Your task to perform on an android device: delete a single message in the gmail app Image 0: 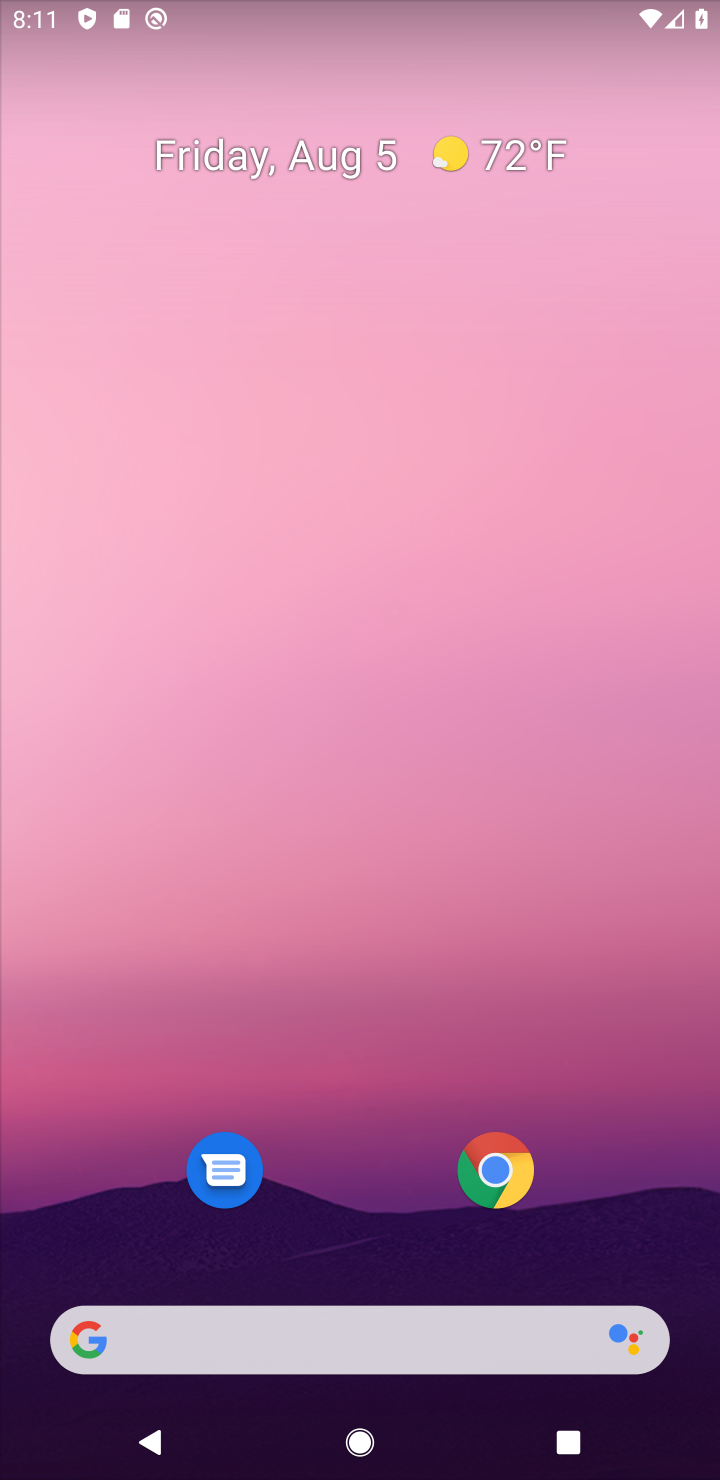
Step 0: drag from (672, 1243) to (572, 111)
Your task to perform on an android device: delete a single message in the gmail app Image 1: 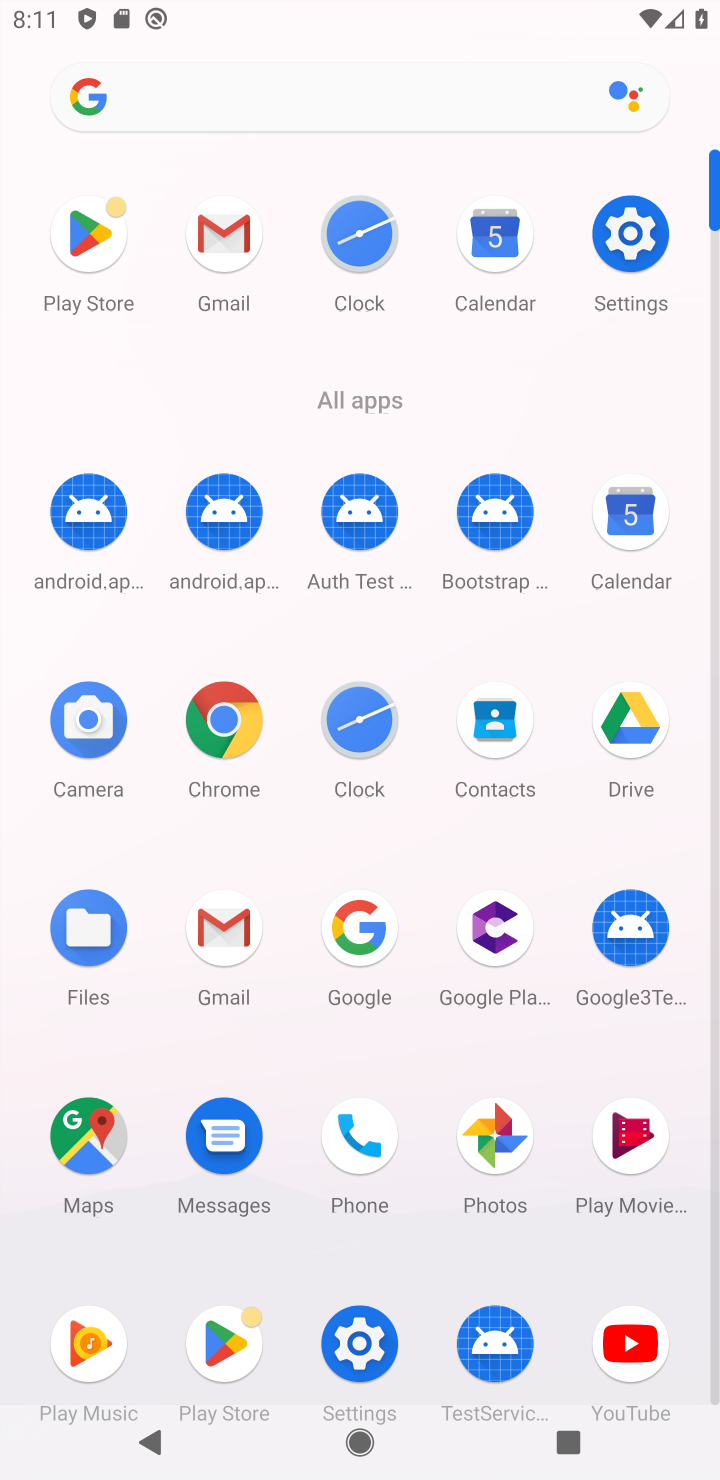
Step 1: click (222, 934)
Your task to perform on an android device: delete a single message in the gmail app Image 2: 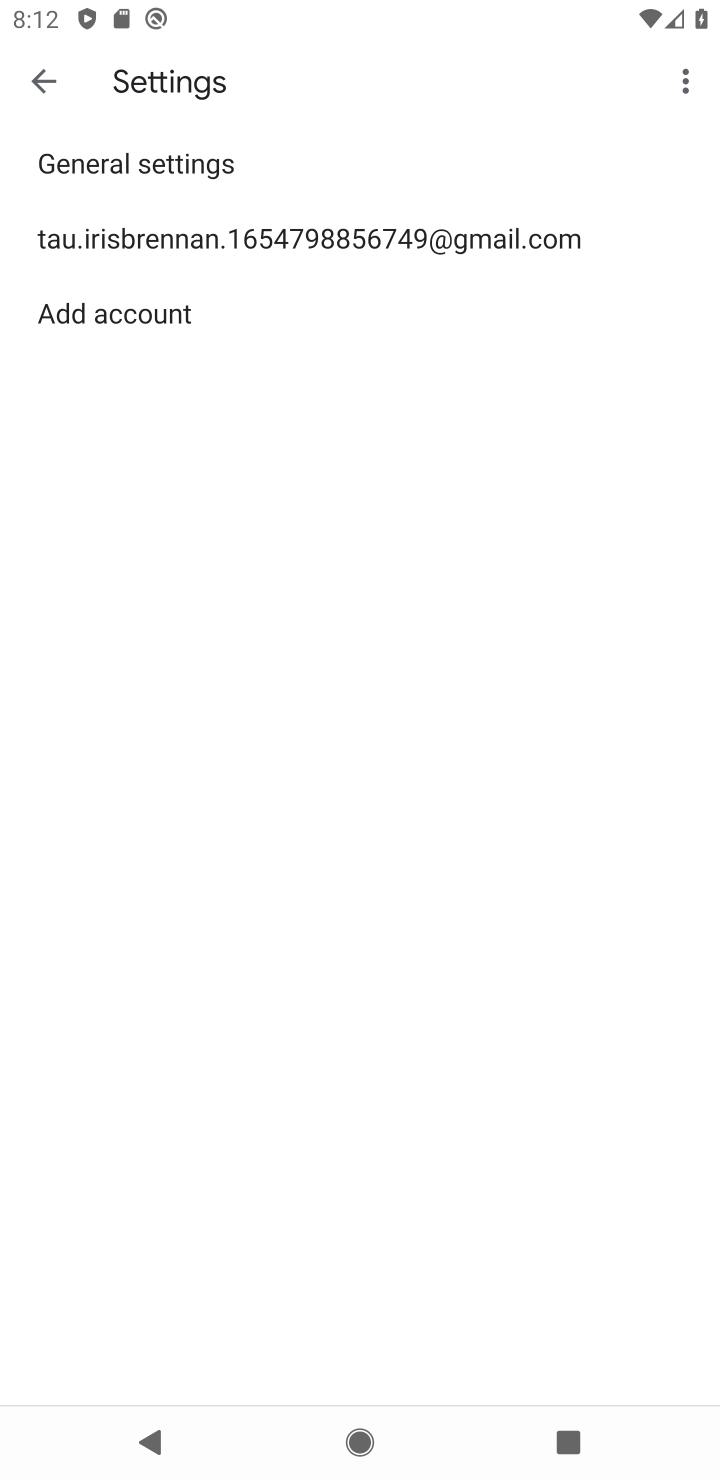
Step 2: press back button
Your task to perform on an android device: delete a single message in the gmail app Image 3: 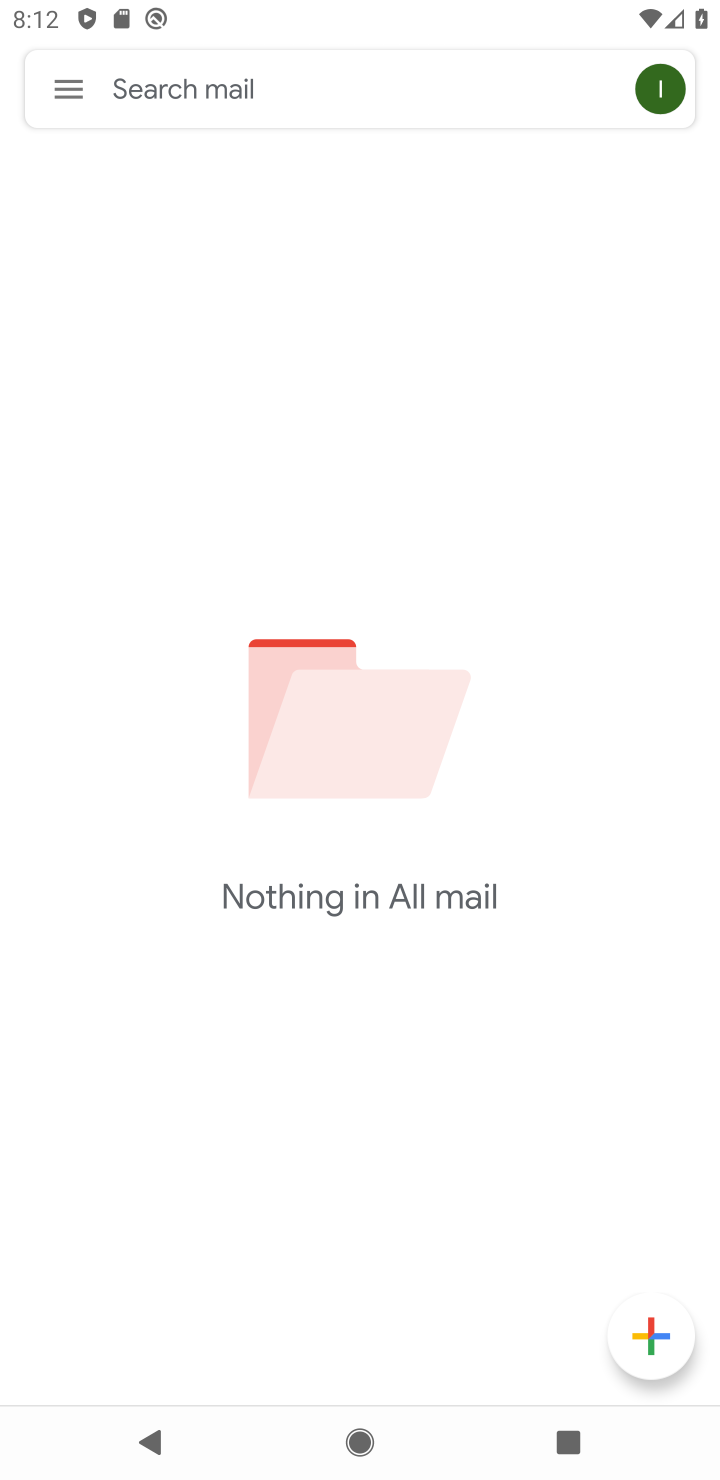
Step 3: click (65, 96)
Your task to perform on an android device: delete a single message in the gmail app Image 4: 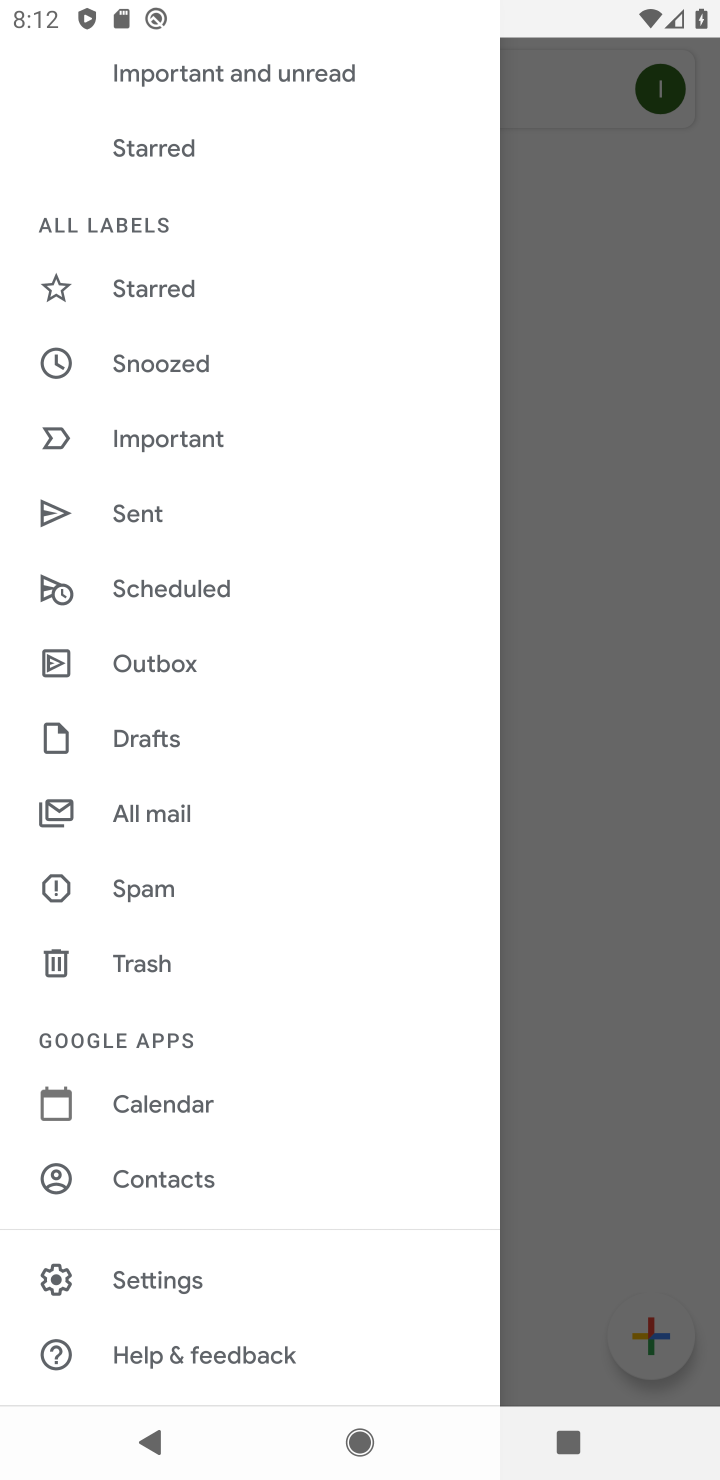
Step 4: click (169, 799)
Your task to perform on an android device: delete a single message in the gmail app Image 5: 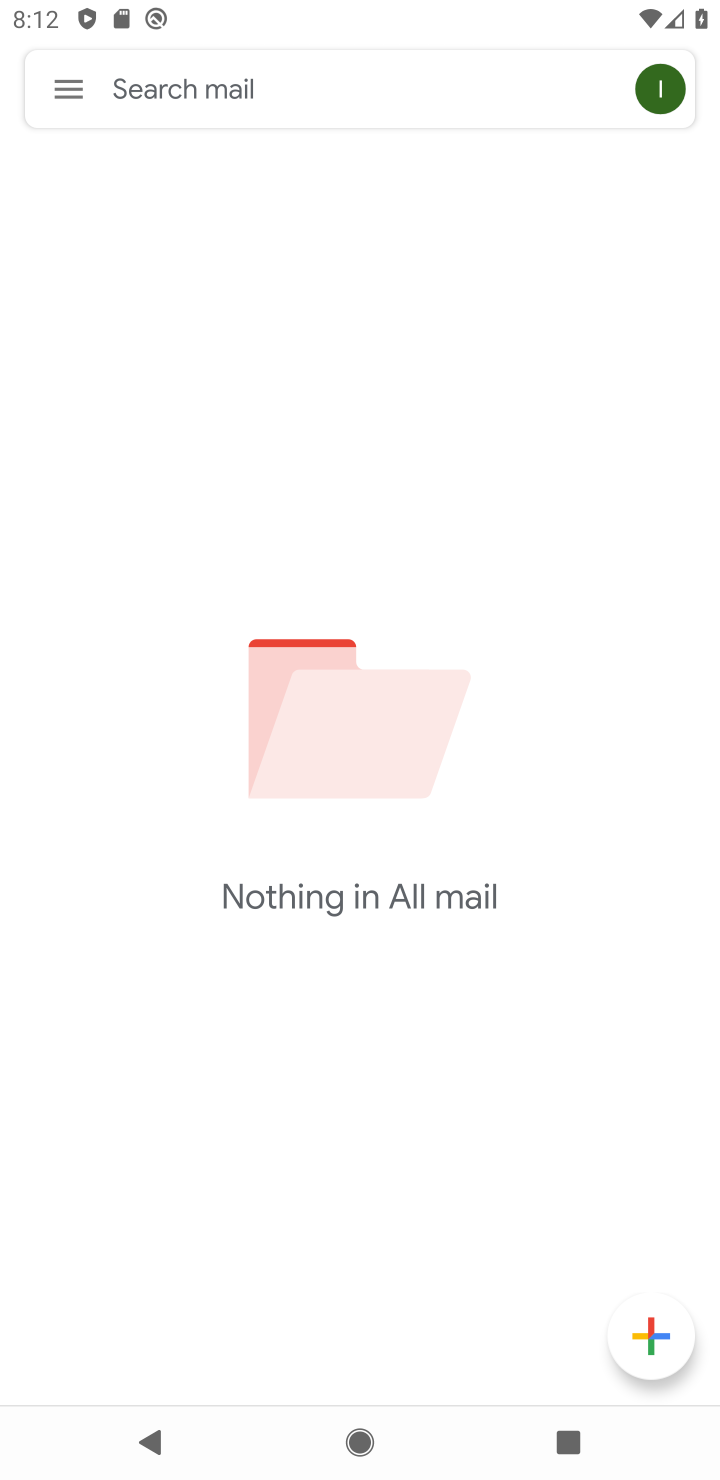
Step 5: task complete